Your task to perform on an android device: toggle pop-ups in chrome Image 0: 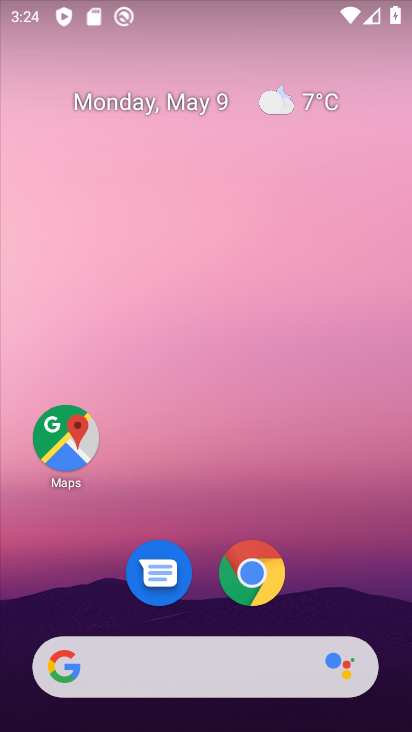
Step 0: click (246, 573)
Your task to perform on an android device: toggle pop-ups in chrome Image 1: 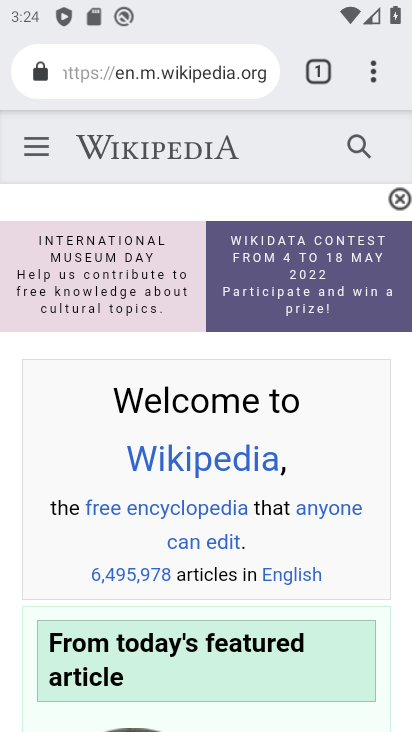
Step 1: click (374, 70)
Your task to perform on an android device: toggle pop-ups in chrome Image 2: 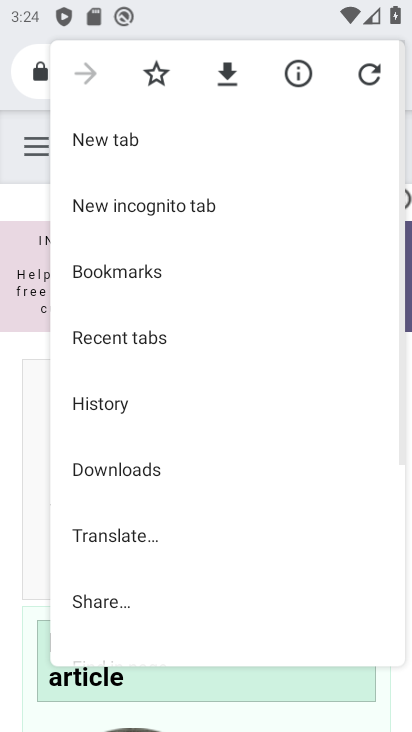
Step 2: drag from (221, 579) to (243, 176)
Your task to perform on an android device: toggle pop-ups in chrome Image 3: 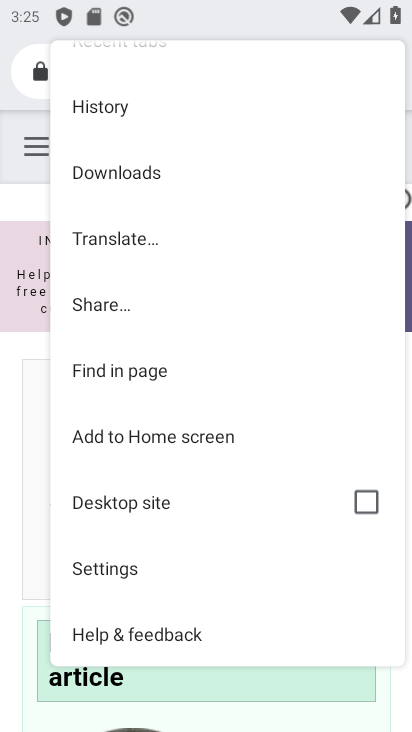
Step 3: click (105, 567)
Your task to perform on an android device: toggle pop-ups in chrome Image 4: 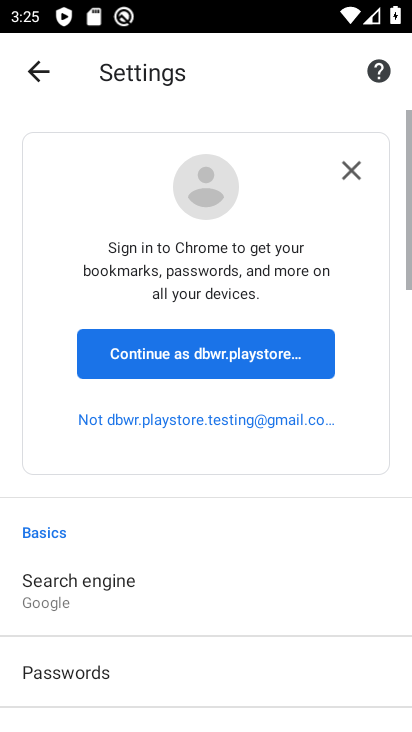
Step 4: drag from (227, 603) to (224, 123)
Your task to perform on an android device: toggle pop-ups in chrome Image 5: 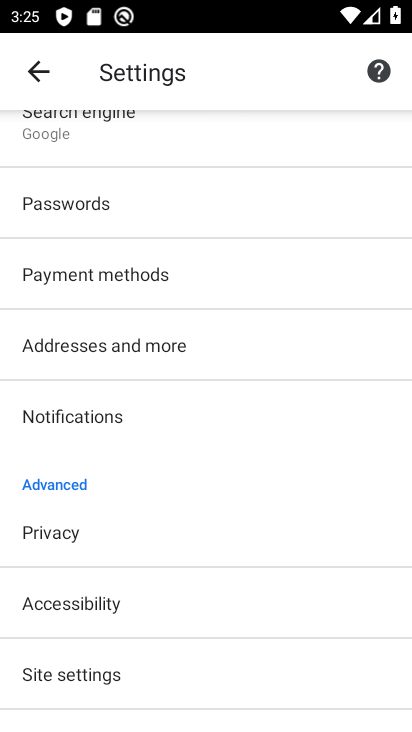
Step 5: click (93, 673)
Your task to perform on an android device: toggle pop-ups in chrome Image 6: 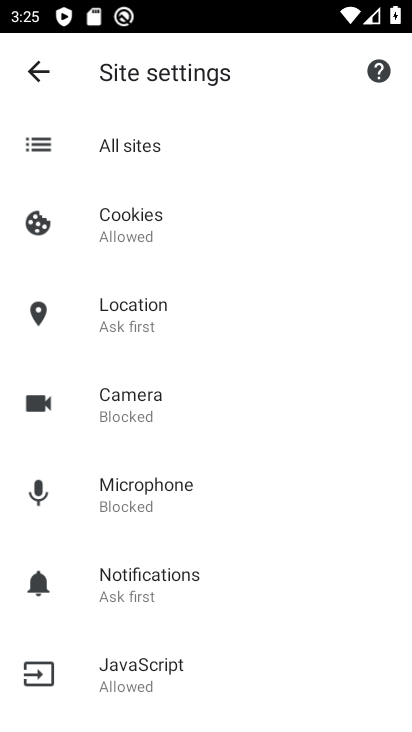
Step 6: drag from (245, 617) to (249, 367)
Your task to perform on an android device: toggle pop-ups in chrome Image 7: 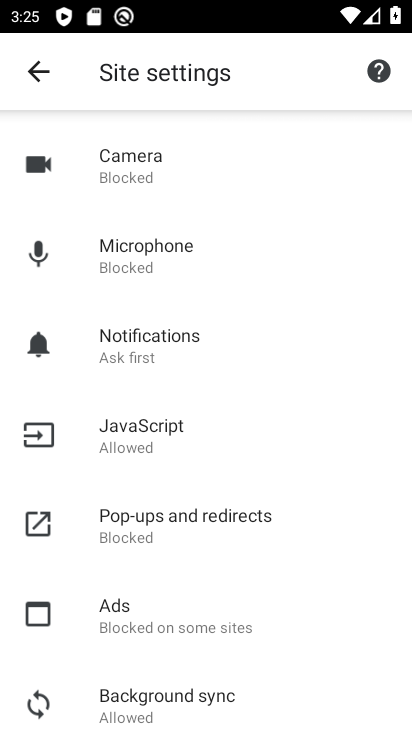
Step 7: click (136, 519)
Your task to perform on an android device: toggle pop-ups in chrome Image 8: 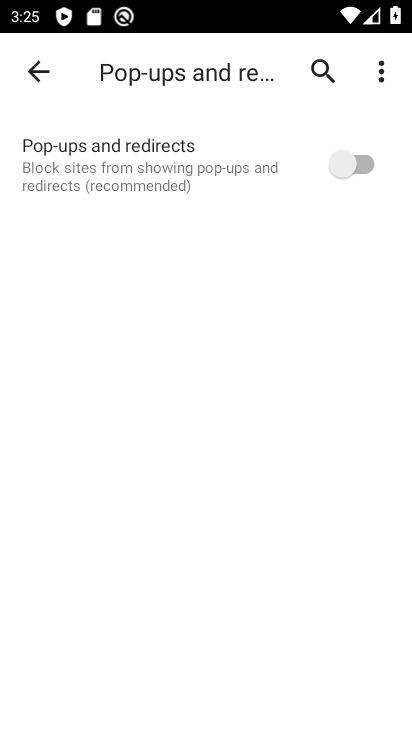
Step 8: click (334, 170)
Your task to perform on an android device: toggle pop-ups in chrome Image 9: 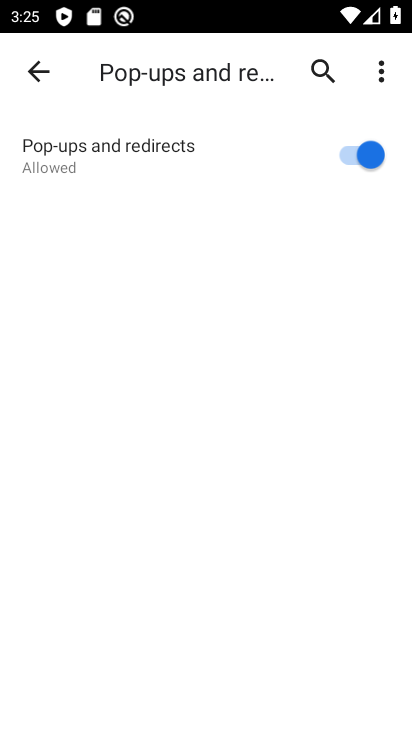
Step 9: task complete